Your task to perform on an android device: open a bookmark in the chrome app Image 0: 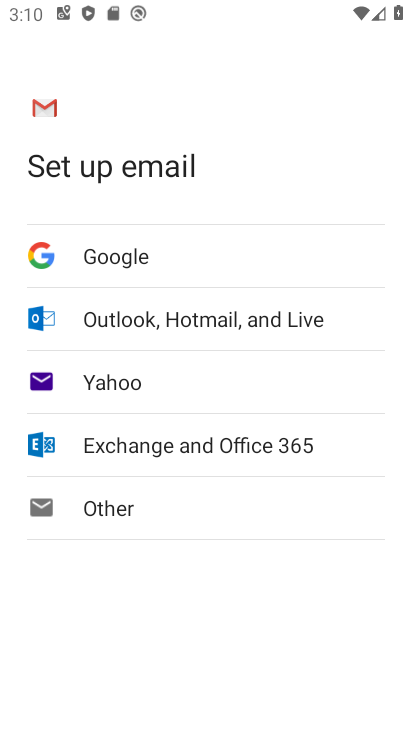
Step 0: press home button
Your task to perform on an android device: open a bookmark in the chrome app Image 1: 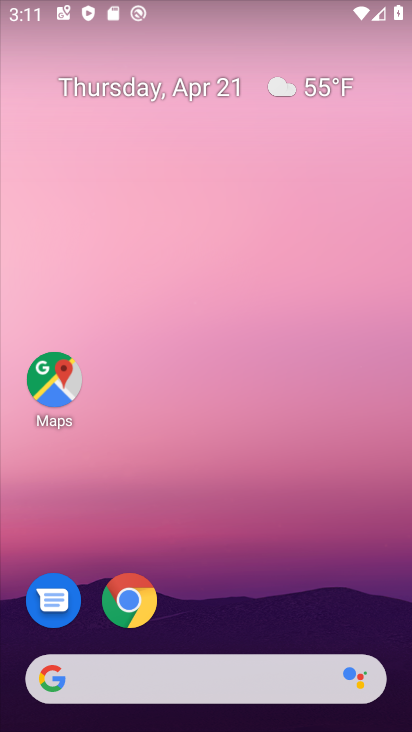
Step 1: drag from (181, 663) to (312, 51)
Your task to perform on an android device: open a bookmark in the chrome app Image 2: 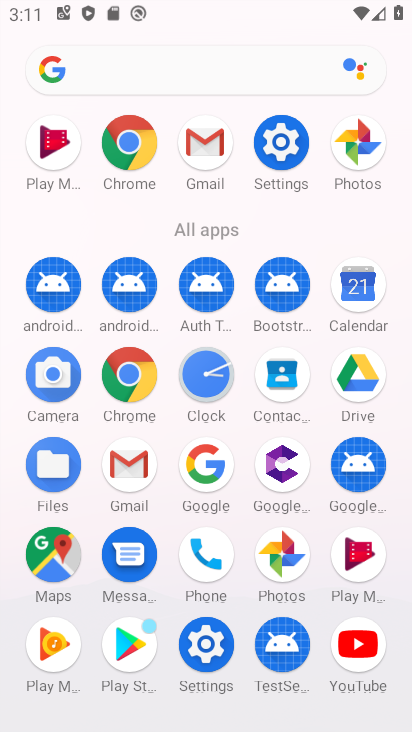
Step 2: click (138, 157)
Your task to perform on an android device: open a bookmark in the chrome app Image 3: 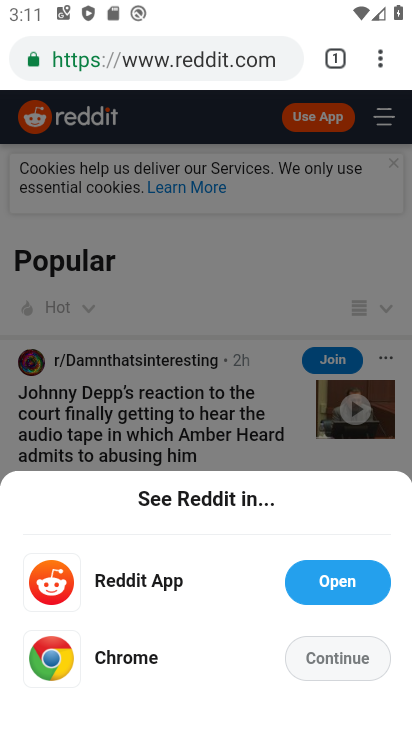
Step 3: click (371, 68)
Your task to perform on an android device: open a bookmark in the chrome app Image 4: 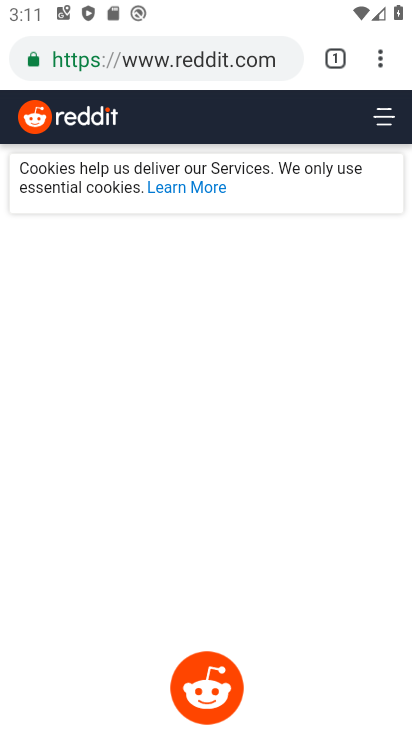
Step 4: click (371, 70)
Your task to perform on an android device: open a bookmark in the chrome app Image 5: 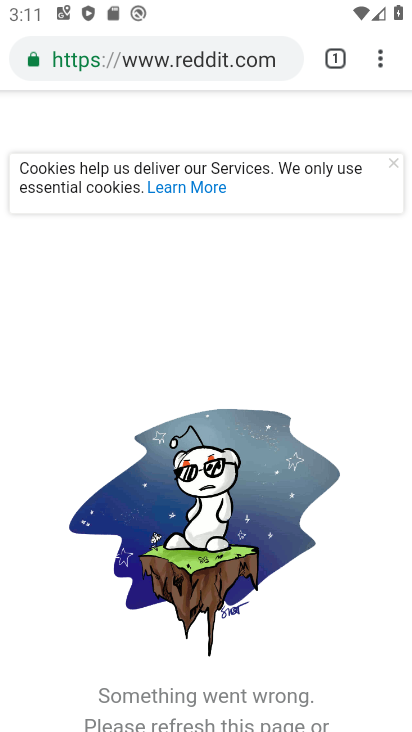
Step 5: click (383, 77)
Your task to perform on an android device: open a bookmark in the chrome app Image 6: 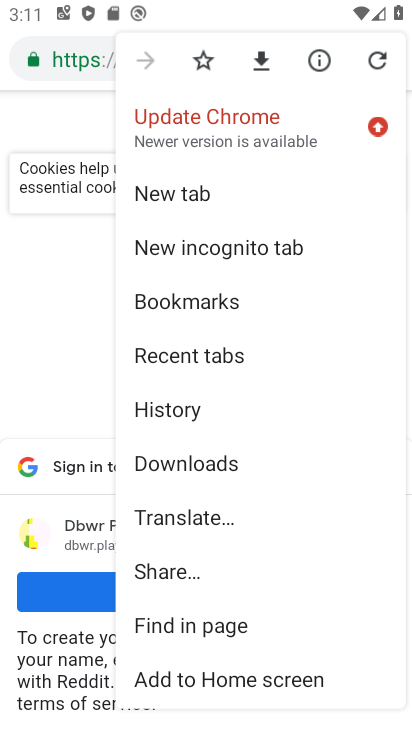
Step 6: click (217, 297)
Your task to perform on an android device: open a bookmark in the chrome app Image 7: 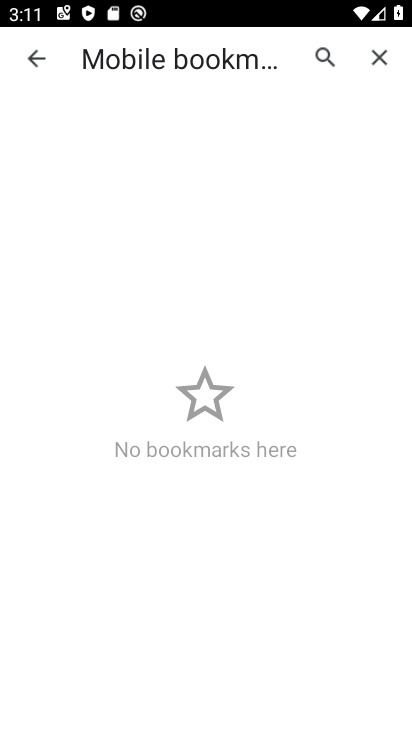
Step 7: task complete